Your task to perform on an android device: Open internet settings Image 0: 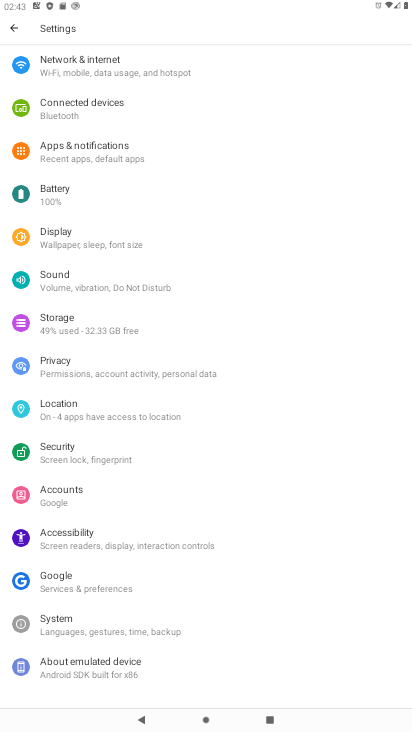
Step 0: click (78, 65)
Your task to perform on an android device: Open internet settings Image 1: 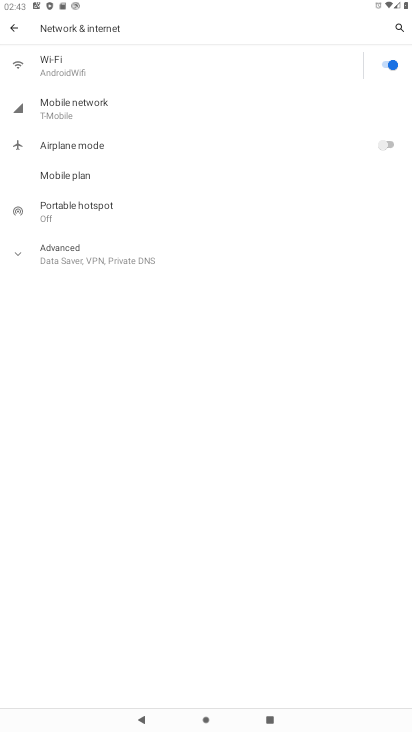
Step 1: click (42, 59)
Your task to perform on an android device: Open internet settings Image 2: 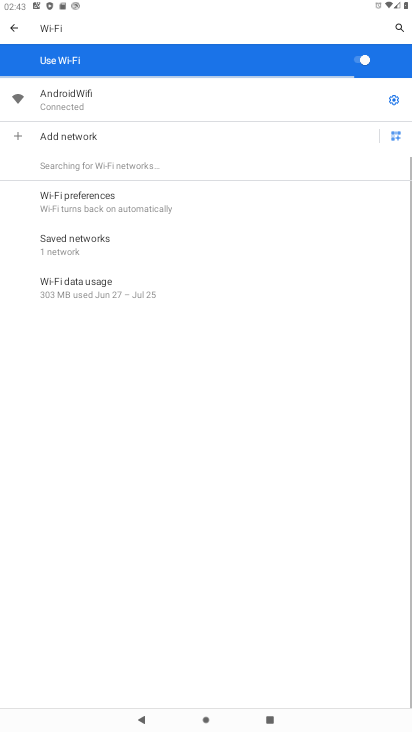
Step 2: task complete